Your task to perform on an android device: toggle improve location accuracy Image 0: 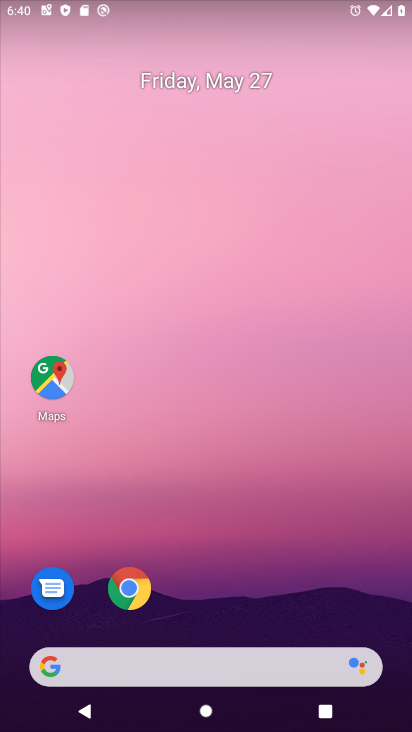
Step 0: drag from (199, 539) to (225, 2)
Your task to perform on an android device: toggle improve location accuracy Image 1: 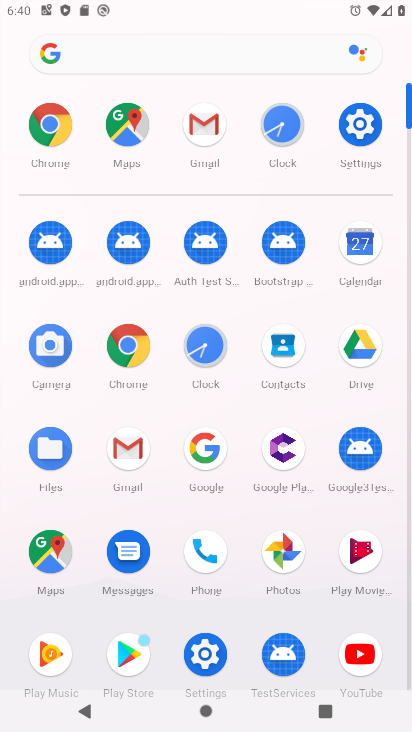
Step 1: click (351, 141)
Your task to perform on an android device: toggle improve location accuracy Image 2: 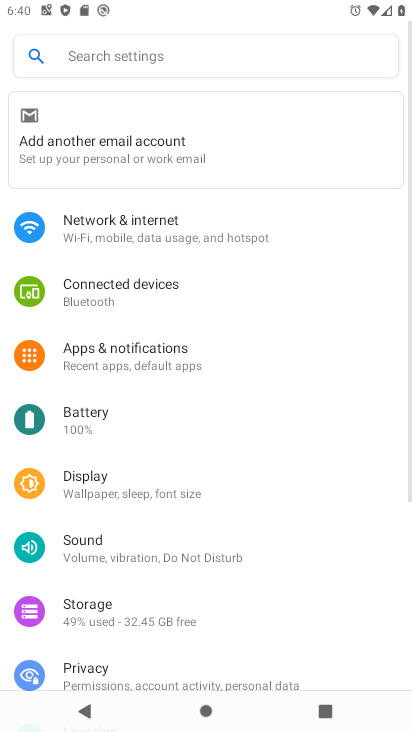
Step 2: drag from (225, 514) to (301, 5)
Your task to perform on an android device: toggle improve location accuracy Image 3: 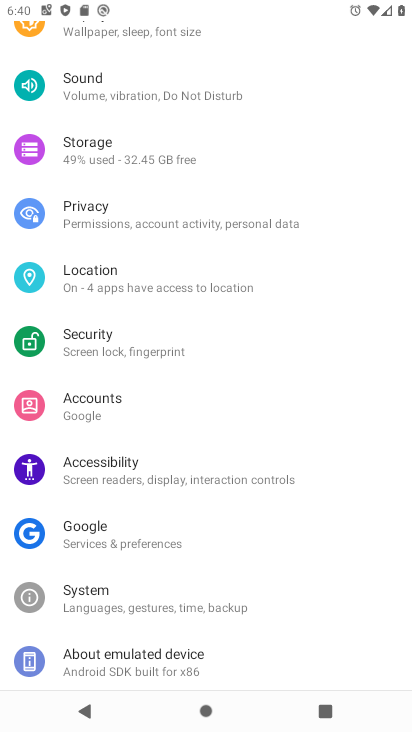
Step 3: click (66, 281)
Your task to perform on an android device: toggle improve location accuracy Image 4: 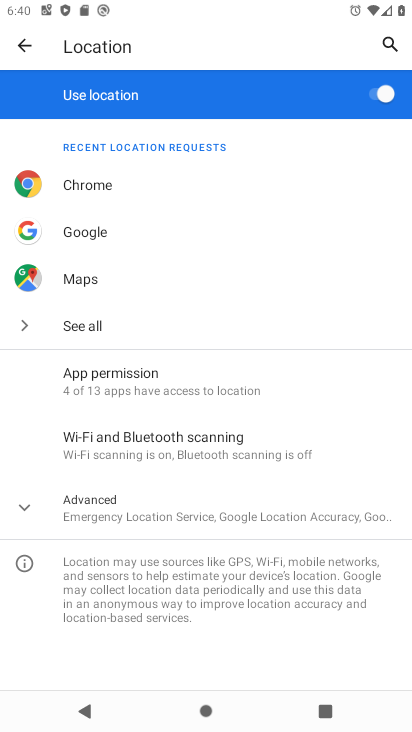
Step 4: click (133, 511)
Your task to perform on an android device: toggle improve location accuracy Image 5: 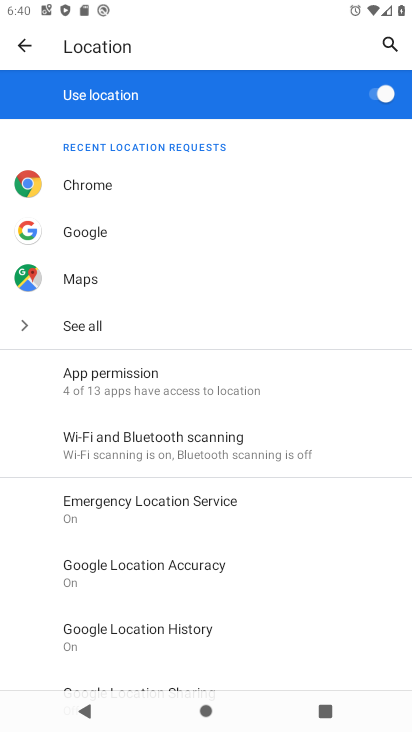
Step 5: click (120, 570)
Your task to perform on an android device: toggle improve location accuracy Image 6: 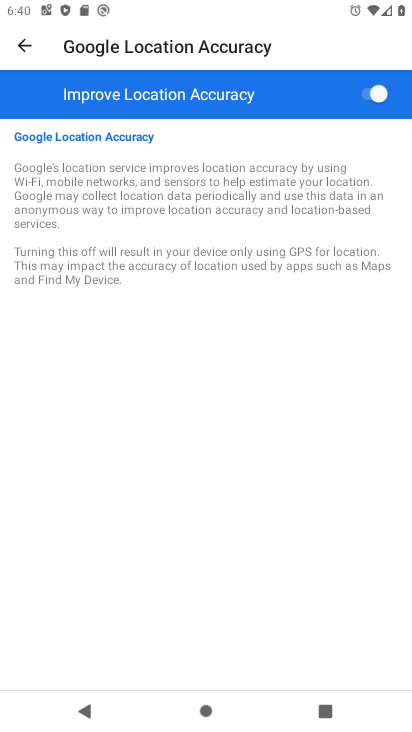
Step 6: click (249, 107)
Your task to perform on an android device: toggle improve location accuracy Image 7: 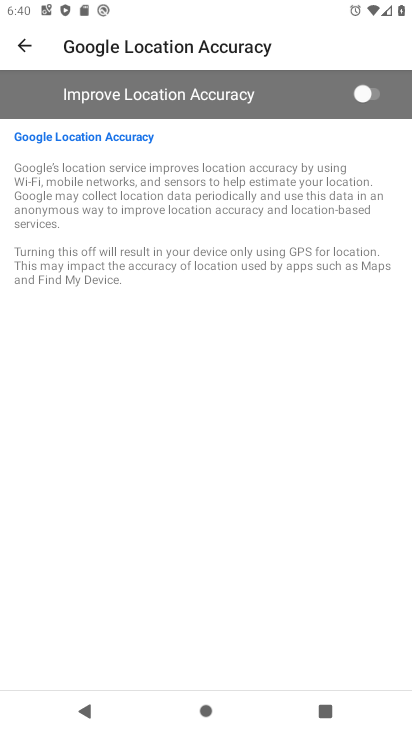
Step 7: task complete